Your task to perform on an android device: Open my contact list Image 0: 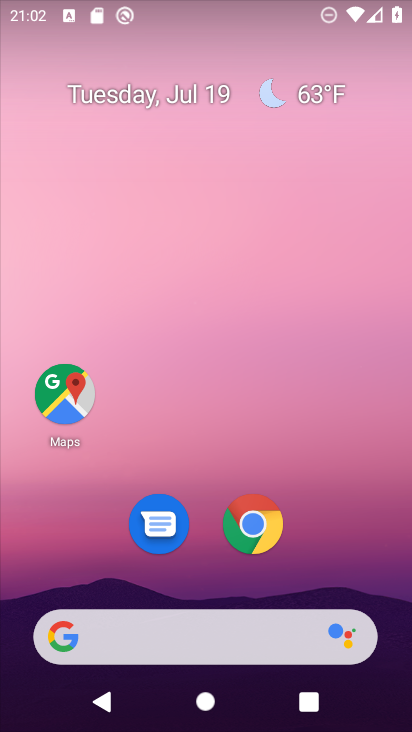
Step 0: drag from (314, 530) to (338, 35)
Your task to perform on an android device: Open my contact list Image 1: 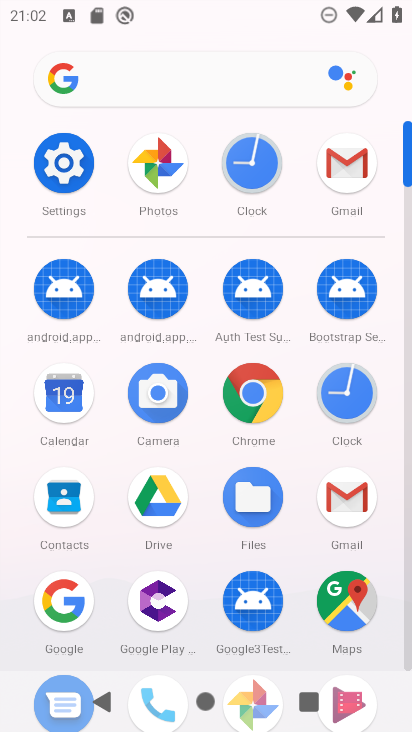
Step 1: click (66, 499)
Your task to perform on an android device: Open my contact list Image 2: 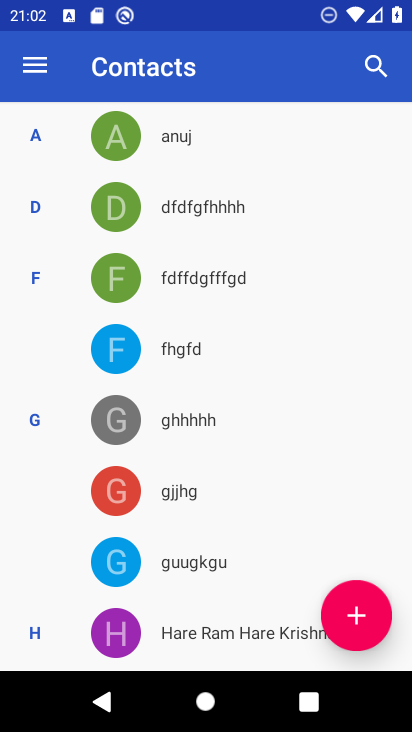
Step 2: task complete